Your task to perform on an android device: turn pop-ups on in chrome Image 0: 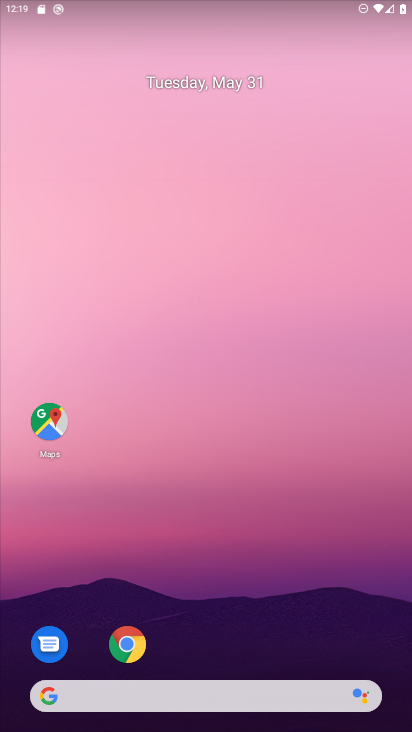
Step 0: drag from (268, 493) to (322, 33)
Your task to perform on an android device: turn pop-ups on in chrome Image 1: 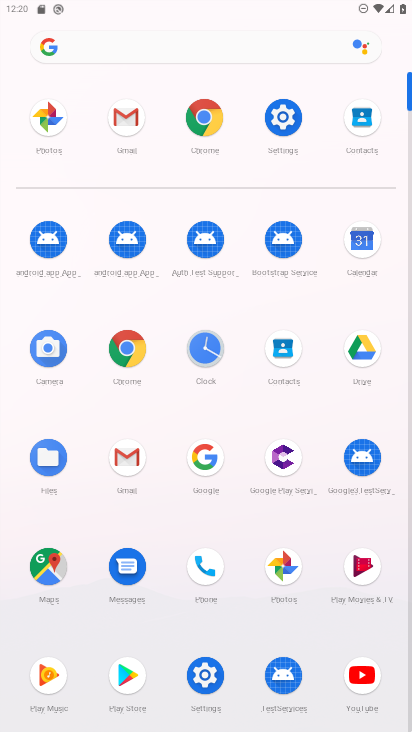
Step 1: click (113, 349)
Your task to perform on an android device: turn pop-ups on in chrome Image 2: 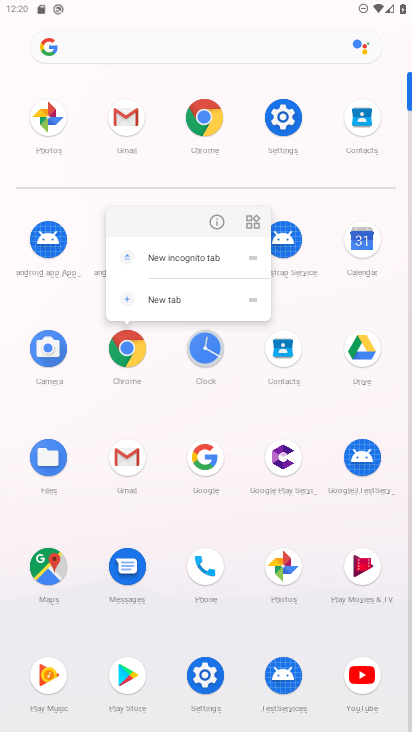
Step 2: click (221, 217)
Your task to perform on an android device: turn pop-ups on in chrome Image 3: 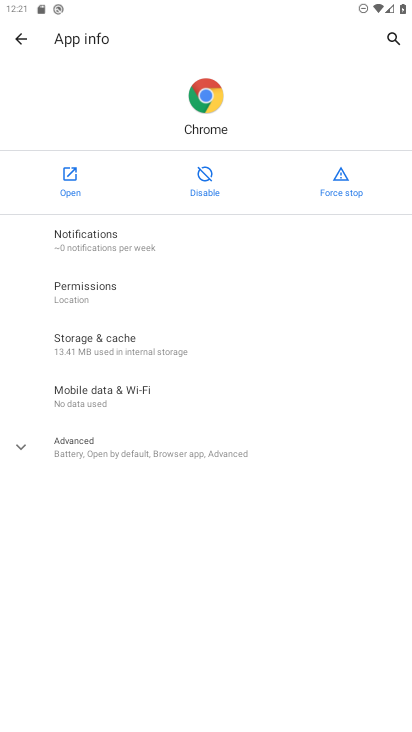
Step 3: click (75, 179)
Your task to perform on an android device: turn pop-ups on in chrome Image 4: 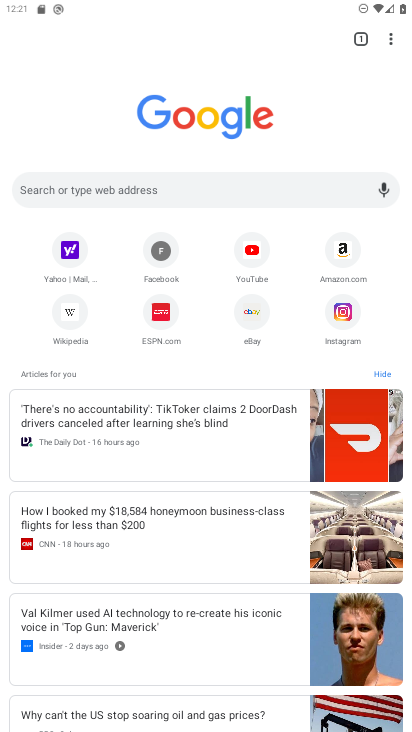
Step 4: drag from (324, 180) to (279, 388)
Your task to perform on an android device: turn pop-ups on in chrome Image 5: 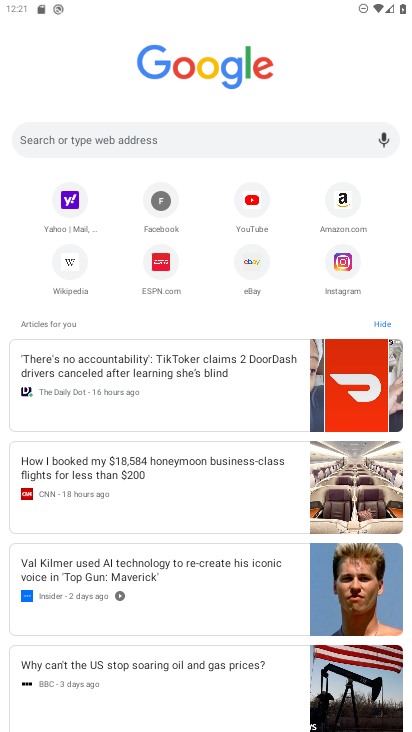
Step 5: drag from (362, 149) to (358, 191)
Your task to perform on an android device: turn pop-ups on in chrome Image 6: 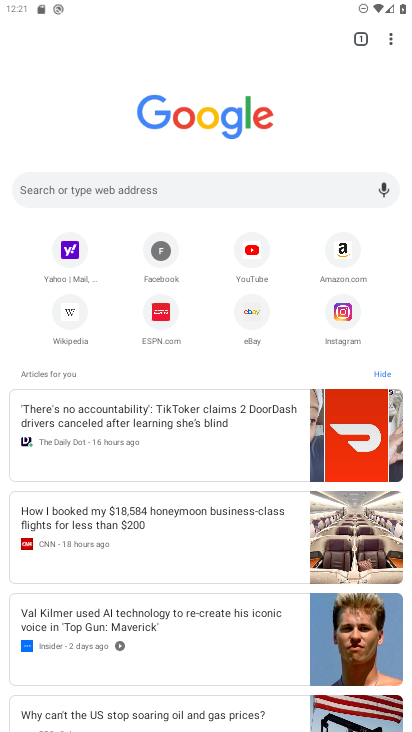
Step 6: drag from (393, 37) to (276, 370)
Your task to perform on an android device: turn pop-ups on in chrome Image 7: 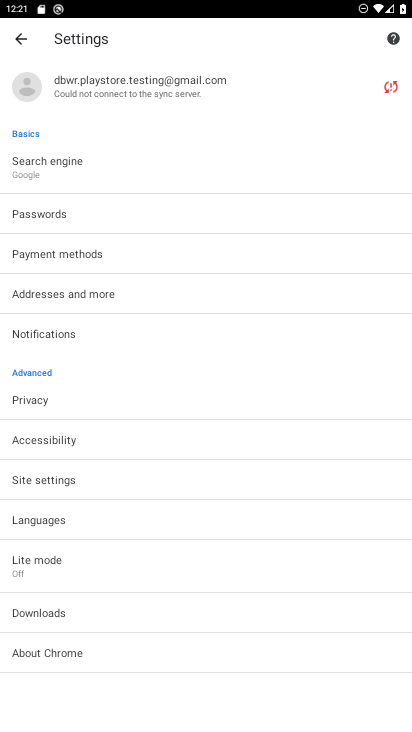
Step 7: click (67, 480)
Your task to perform on an android device: turn pop-ups on in chrome Image 8: 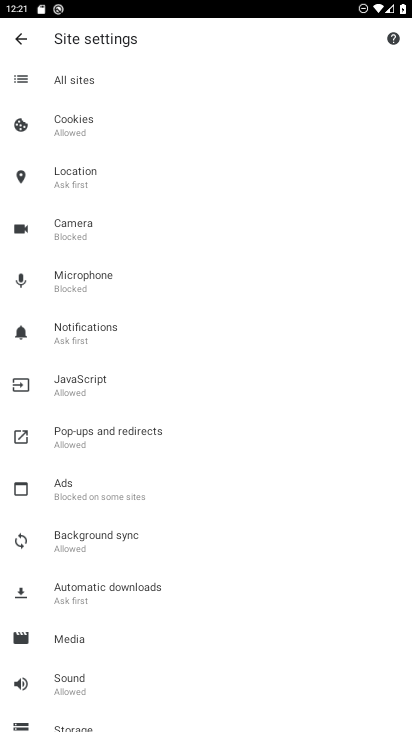
Step 8: click (71, 434)
Your task to perform on an android device: turn pop-ups on in chrome Image 9: 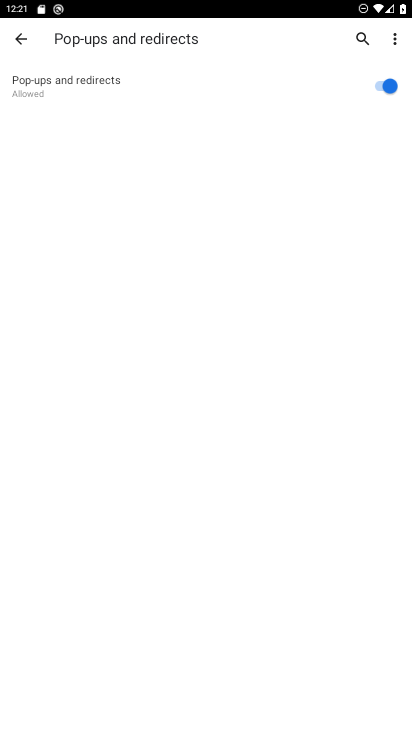
Step 9: task complete